Your task to perform on an android device: turn off notifications in google photos Image 0: 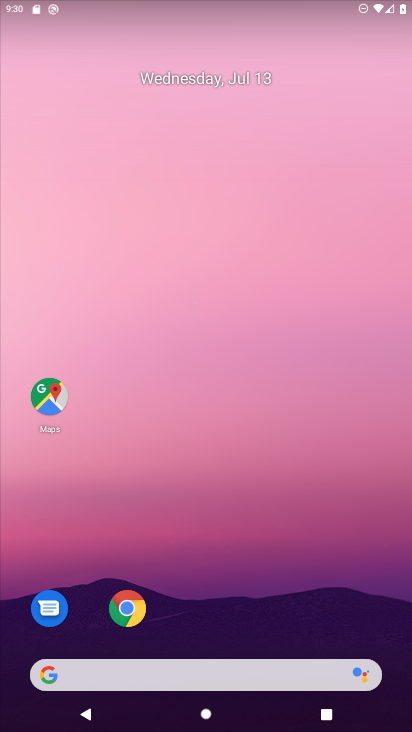
Step 0: drag from (300, 658) to (294, 96)
Your task to perform on an android device: turn off notifications in google photos Image 1: 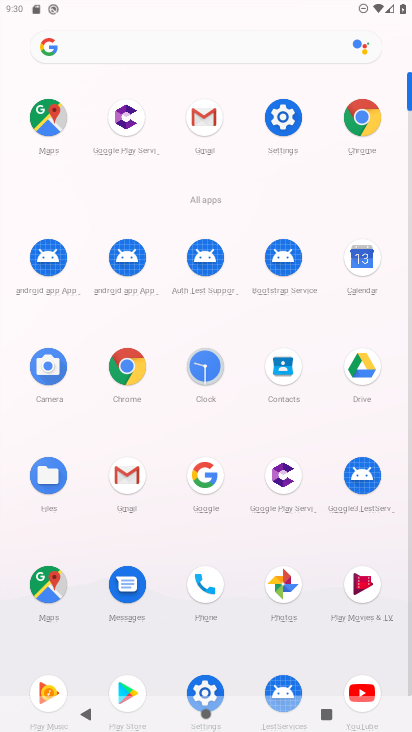
Step 1: click (275, 583)
Your task to perform on an android device: turn off notifications in google photos Image 2: 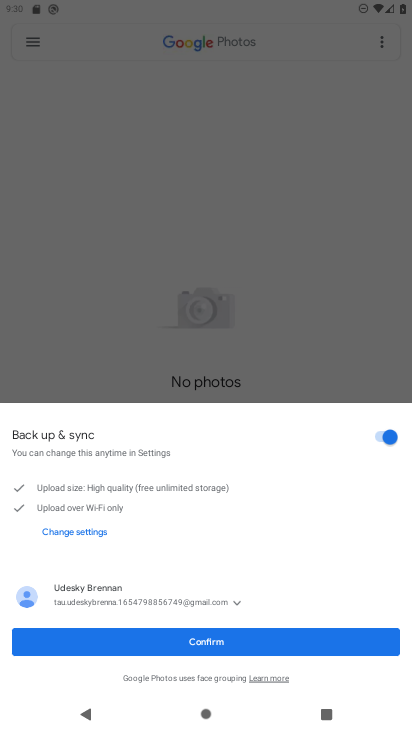
Step 2: click (242, 636)
Your task to perform on an android device: turn off notifications in google photos Image 3: 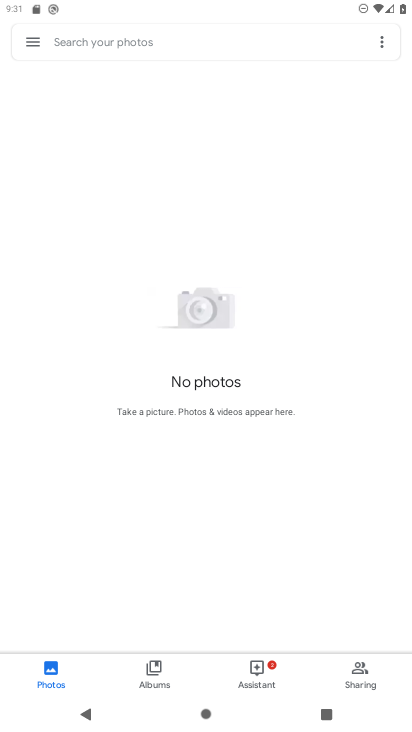
Step 3: click (36, 42)
Your task to perform on an android device: turn off notifications in google photos Image 4: 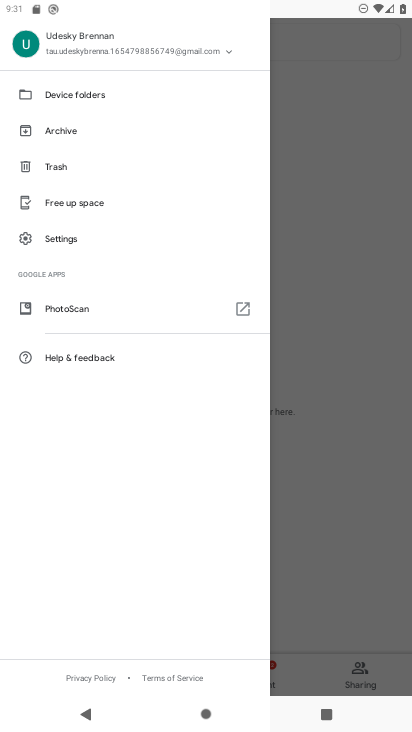
Step 4: click (52, 226)
Your task to perform on an android device: turn off notifications in google photos Image 5: 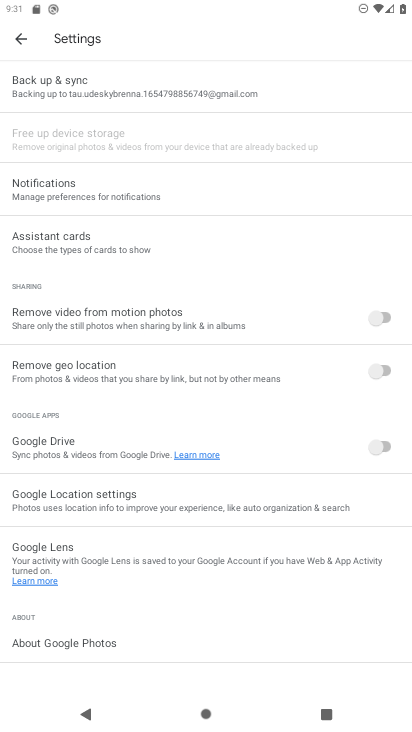
Step 5: click (31, 189)
Your task to perform on an android device: turn off notifications in google photos Image 6: 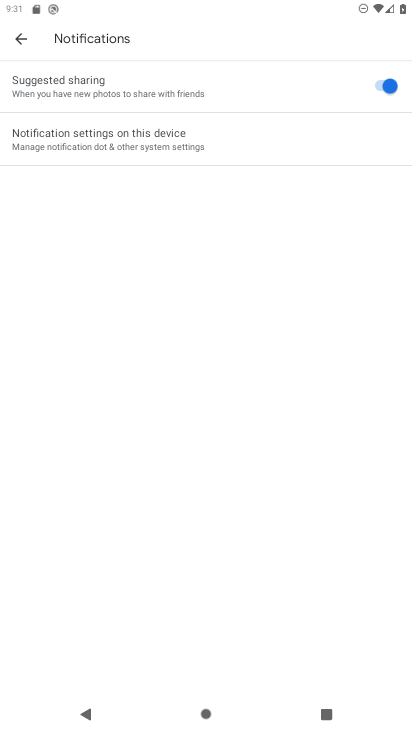
Step 6: click (375, 84)
Your task to perform on an android device: turn off notifications in google photos Image 7: 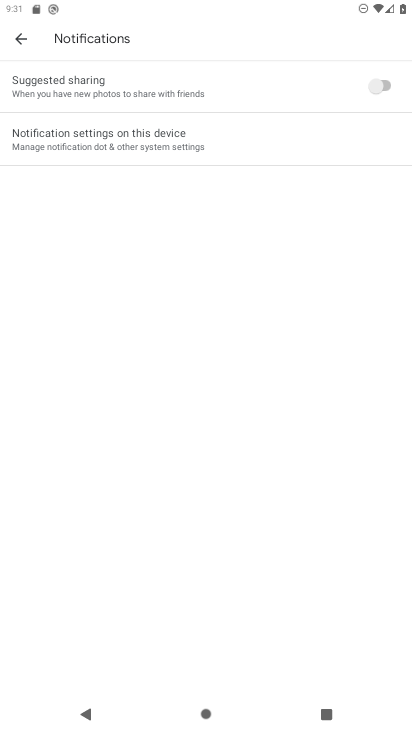
Step 7: task complete